Your task to perform on an android device: Go to network settings Image 0: 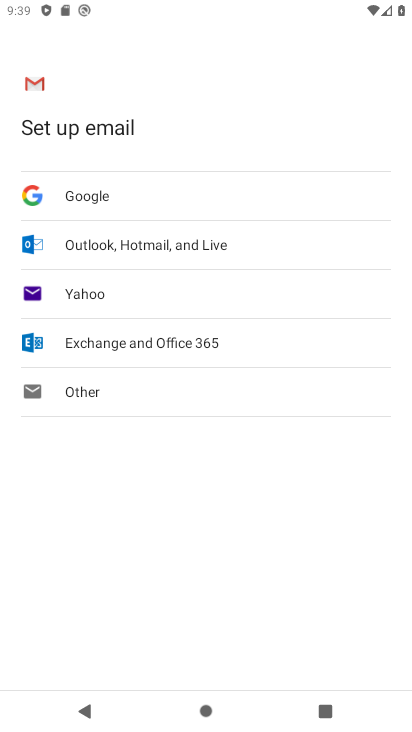
Step 0: press home button
Your task to perform on an android device: Go to network settings Image 1: 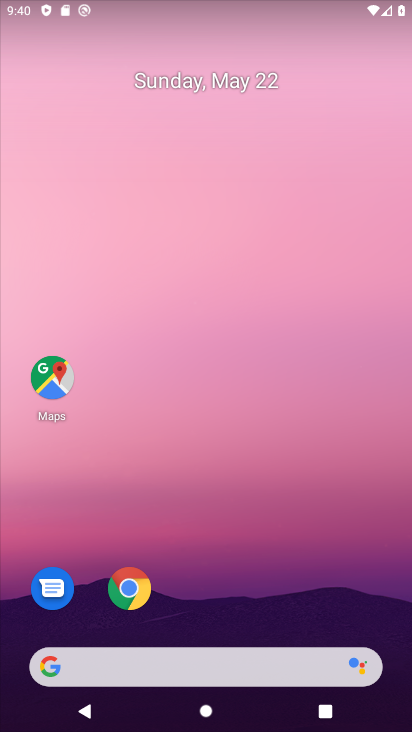
Step 1: drag from (244, 601) to (215, 176)
Your task to perform on an android device: Go to network settings Image 2: 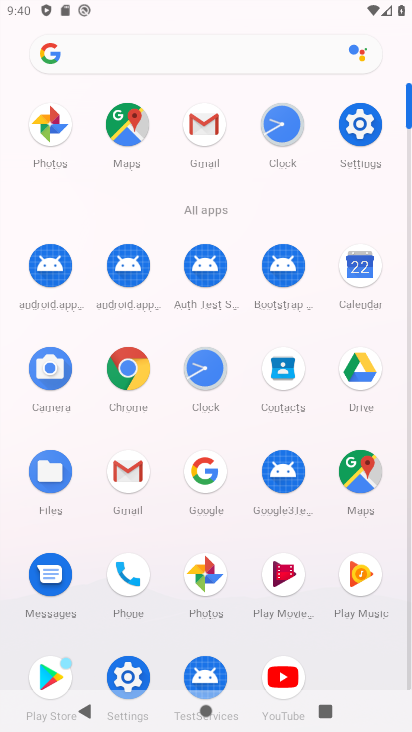
Step 2: click (359, 142)
Your task to perform on an android device: Go to network settings Image 3: 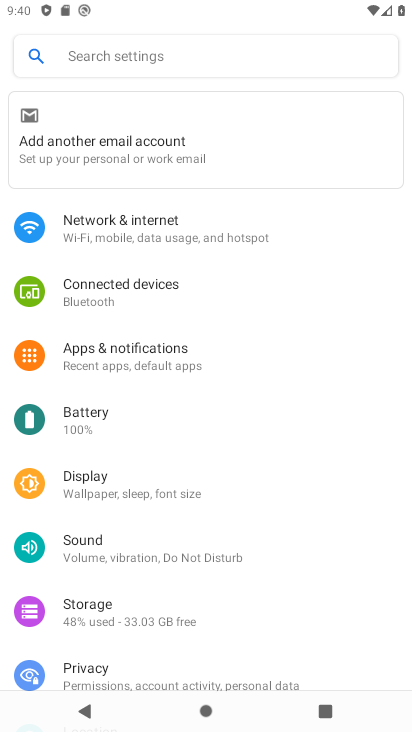
Step 3: click (284, 234)
Your task to perform on an android device: Go to network settings Image 4: 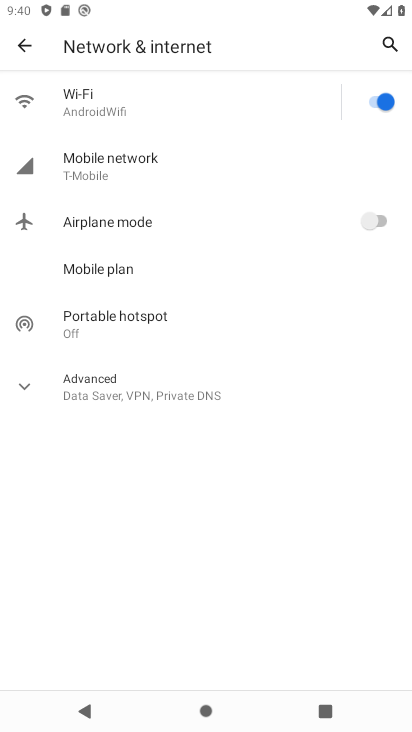
Step 4: task complete